Your task to perform on an android device: delete browsing data in the chrome app Image 0: 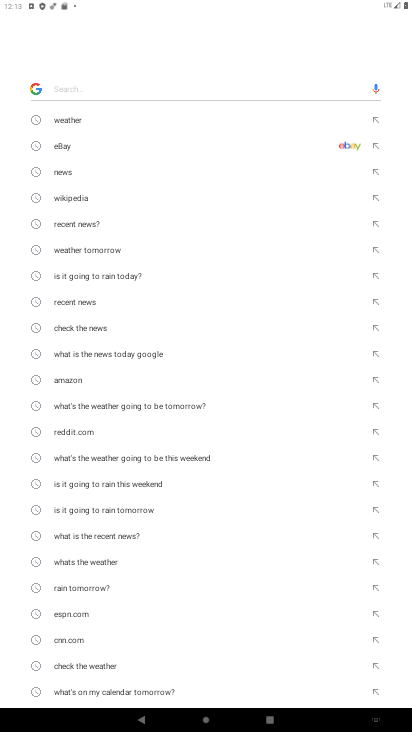
Step 0: press home button
Your task to perform on an android device: delete browsing data in the chrome app Image 1: 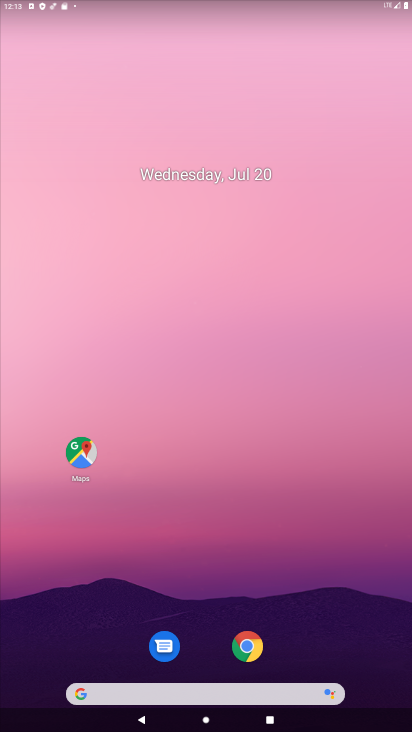
Step 1: click (240, 657)
Your task to perform on an android device: delete browsing data in the chrome app Image 2: 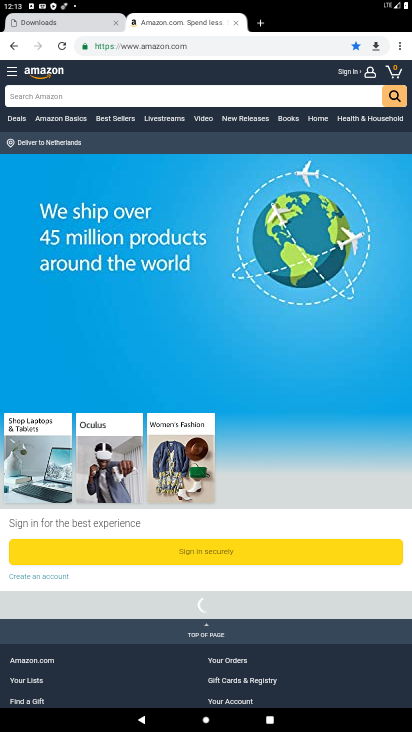
Step 2: click (399, 56)
Your task to perform on an android device: delete browsing data in the chrome app Image 3: 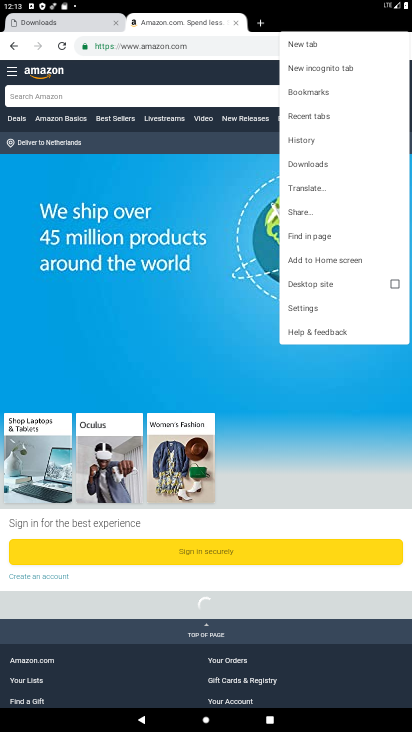
Step 3: click (311, 146)
Your task to perform on an android device: delete browsing data in the chrome app Image 4: 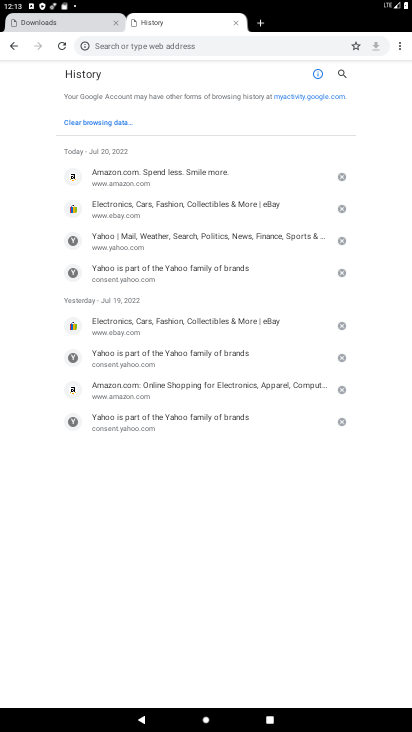
Step 4: click (94, 115)
Your task to perform on an android device: delete browsing data in the chrome app Image 5: 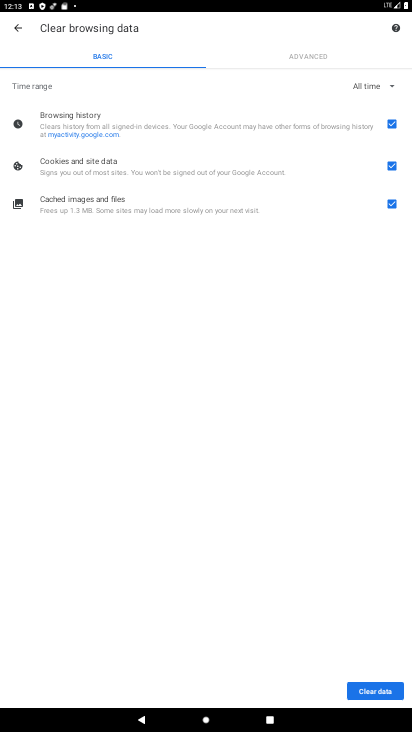
Step 5: click (392, 164)
Your task to perform on an android device: delete browsing data in the chrome app Image 6: 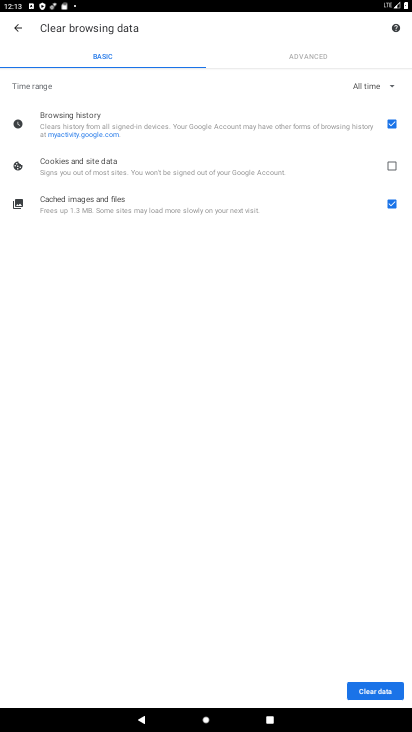
Step 6: click (390, 201)
Your task to perform on an android device: delete browsing data in the chrome app Image 7: 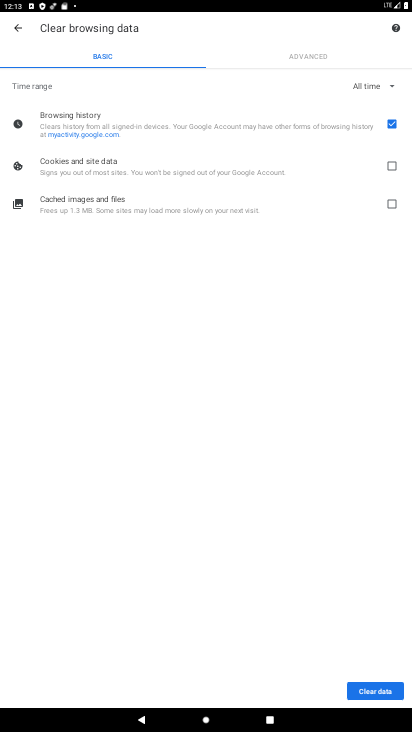
Step 7: click (375, 693)
Your task to perform on an android device: delete browsing data in the chrome app Image 8: 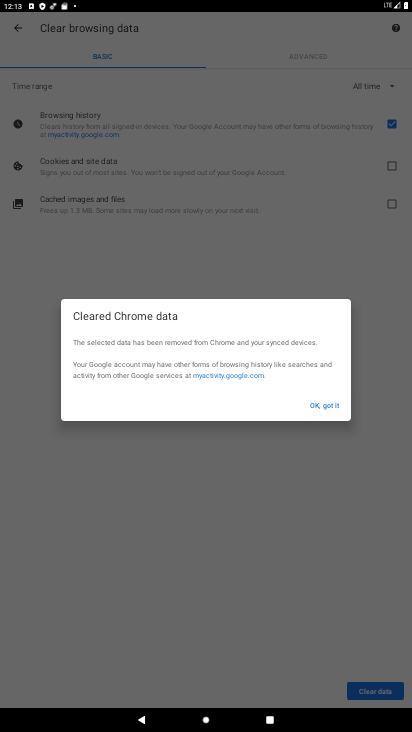
Step 8: click (330, 406)
Your task to perform on an android device: delete browsing data in the chrome app Image 9: 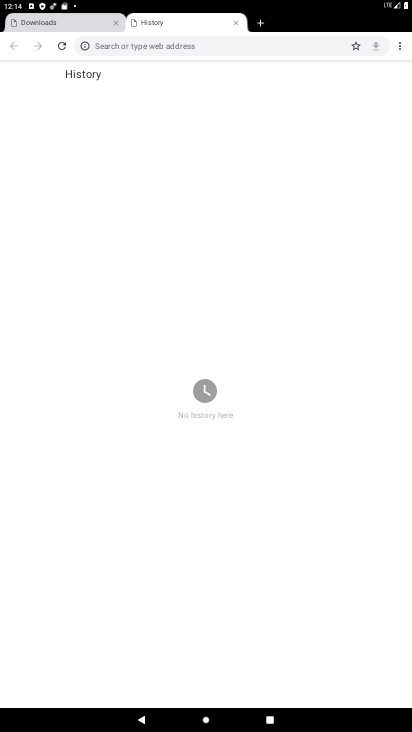
Step 9: task complete